Your task to perform on an android device: turn off translation in the chrome app Image 0: 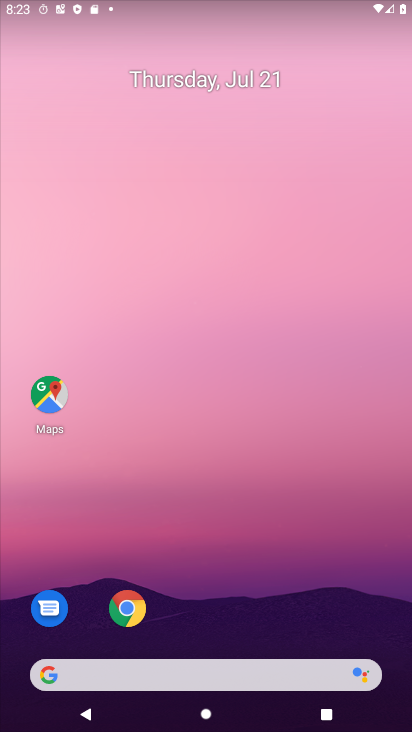
Step 0: click (347, 97)
Your task to perform on an android device: turn off translation in the chrome app Image 1: 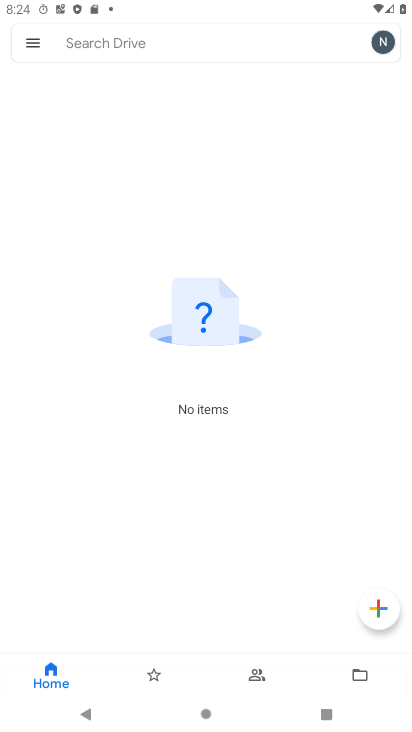
Step 1: press home button
Your task to perform on an android device: turn off translation in the chrome app Image 2: 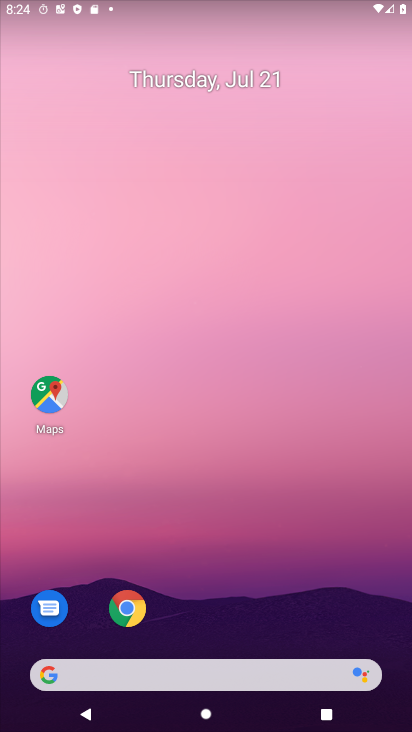
Step 2: click (130, 625)
Your task to perform on an android device: turn off translation in the chrome app Image 3: 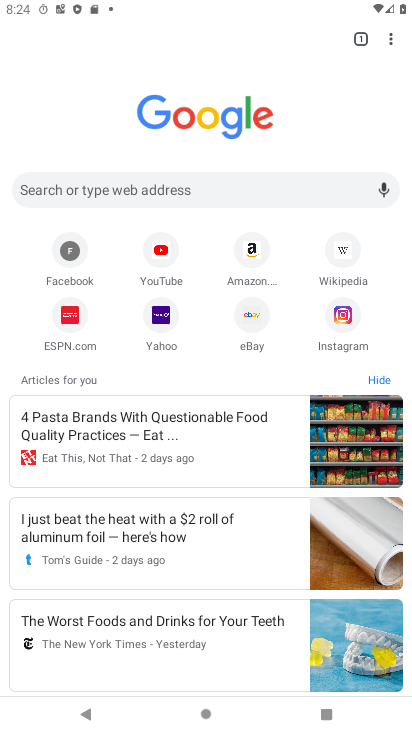
Step 3: click (384, 33)
Your task to perform on an android device: turn off translation in the chrome app Image 4: 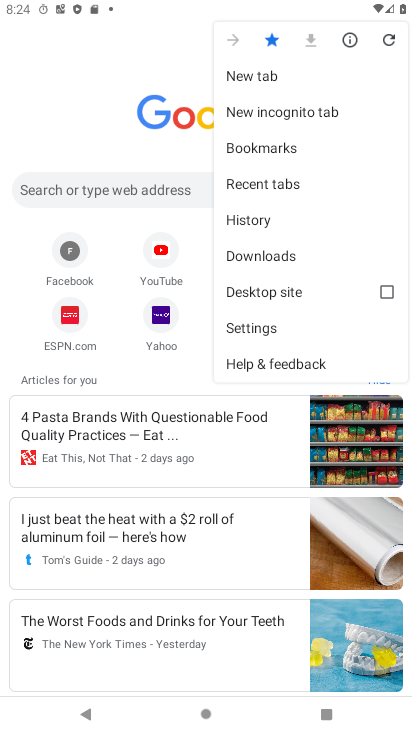
Step 4: click (304, 326)
Your task to perform on an android device: turn off translation in the chrome app Image 5: 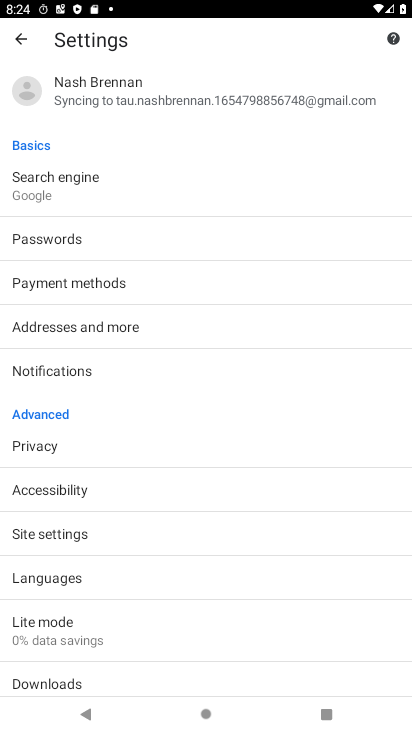
Step 5: click (88, 566)
Your task to perform on an android device: turn off translation in the chrome app Image 6: 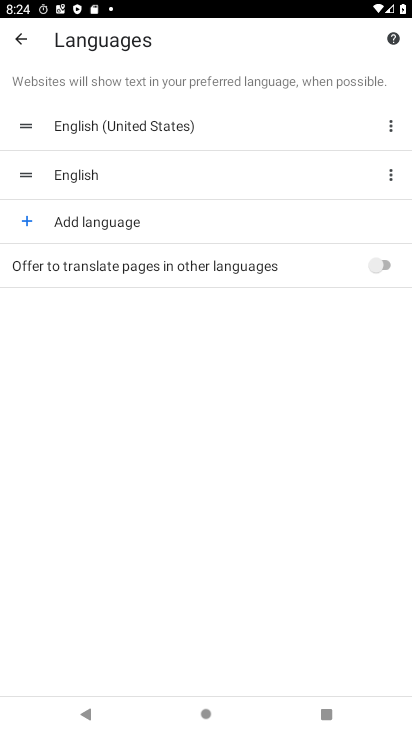
Step 6: task complete